Your task to perform on an android device: toggle airplane mode Image 0: 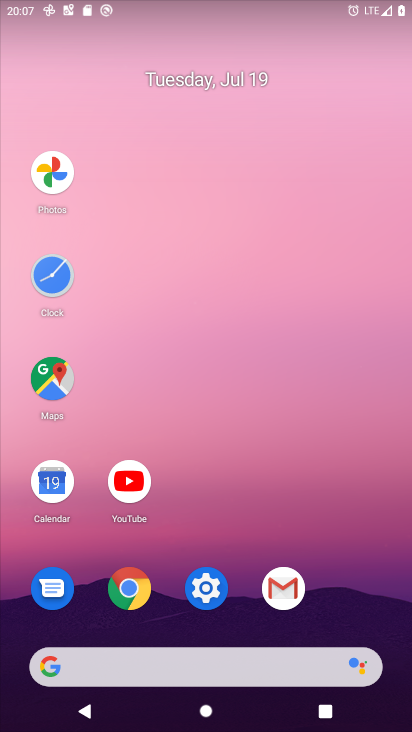
Step 0: click (207, 602)
Your task to perform on an android device: toggle airplane mode Image 1: 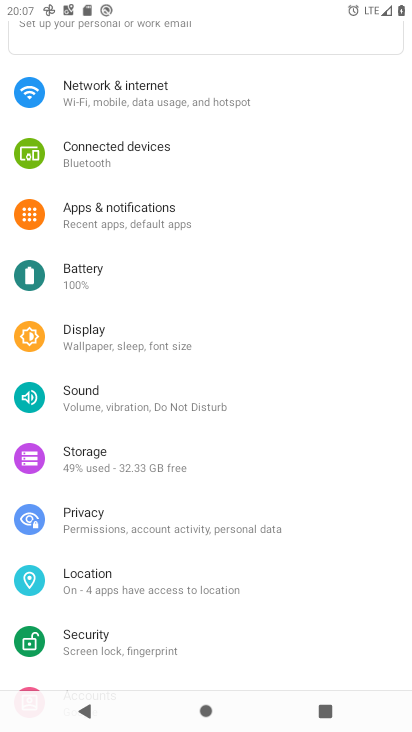
Step 1: click (123, 93)
Your task to perform on an android device: toggle airplane mode Image 2: 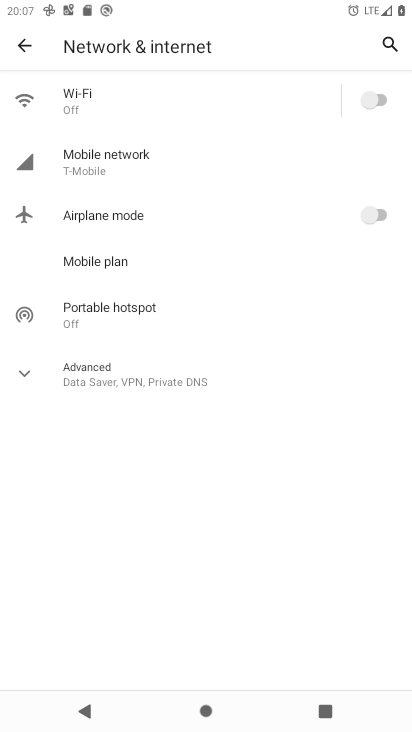
Step 2: click (370, 215)
Your task to perform on an android device: toggle airplane mode Image 3: 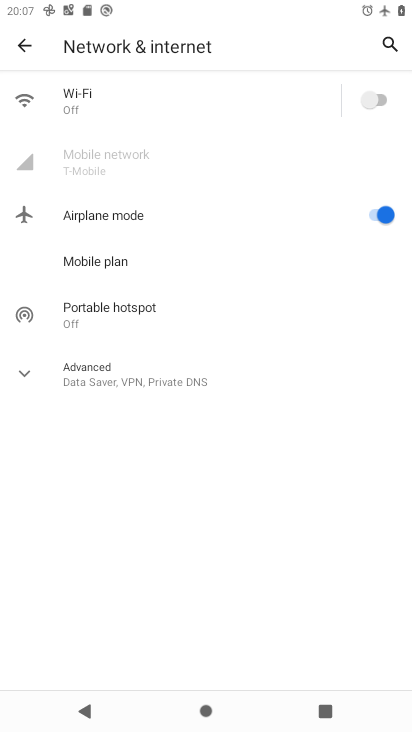
Step 3: task complete